Your task to perform on an android device: find snoozed emails in the gmail app Image 0: 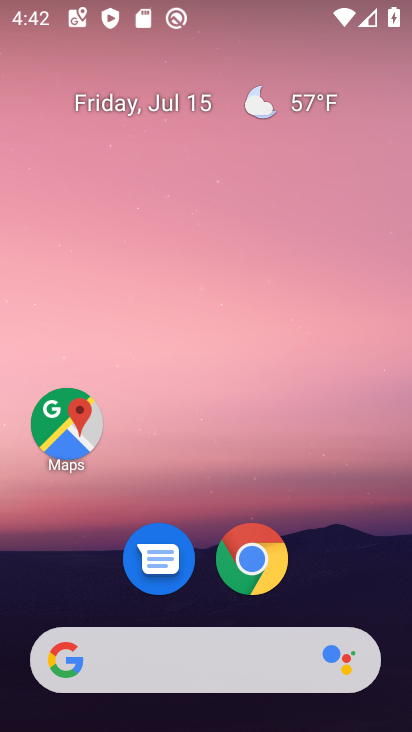
Step 0: drag from (102, 567) to (176, 4)
Your task to perform on an android device: find snoozed emails in the gmail app Image 1: 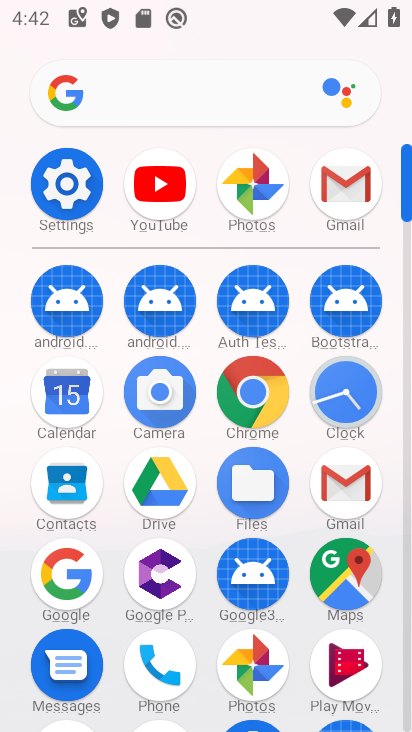
Step 1: click (346, 176)
Your task to perform on an android device: find snoozed emails in the gmail app Image 2: 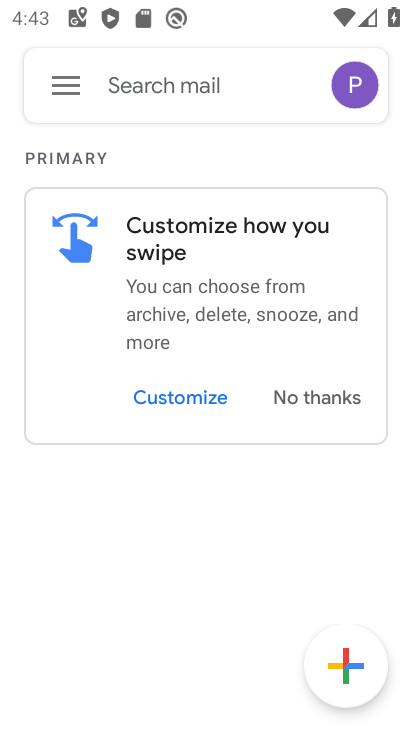
Step 2: click (79, 85)
Your task to perform on an android device: find snoozed emails in the gmail app Image 3: 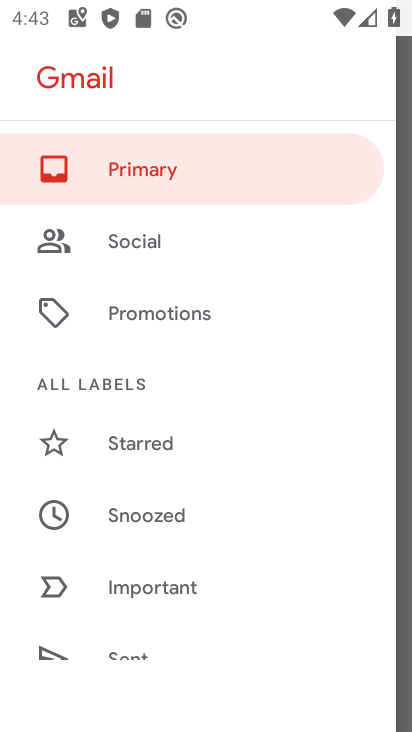
Step 3: click (173, 517)
Your task to perform on an android device: find snoozed emails in the gmail app Image 4: 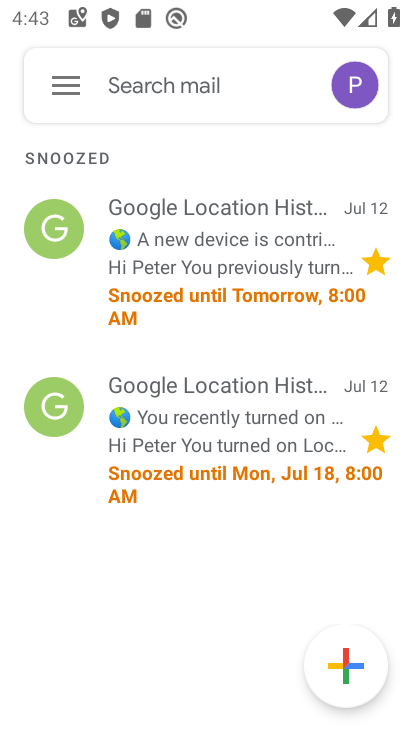
Step 4: task complete